Your task to perform on an android device: Go to ESPN.com Image 0: 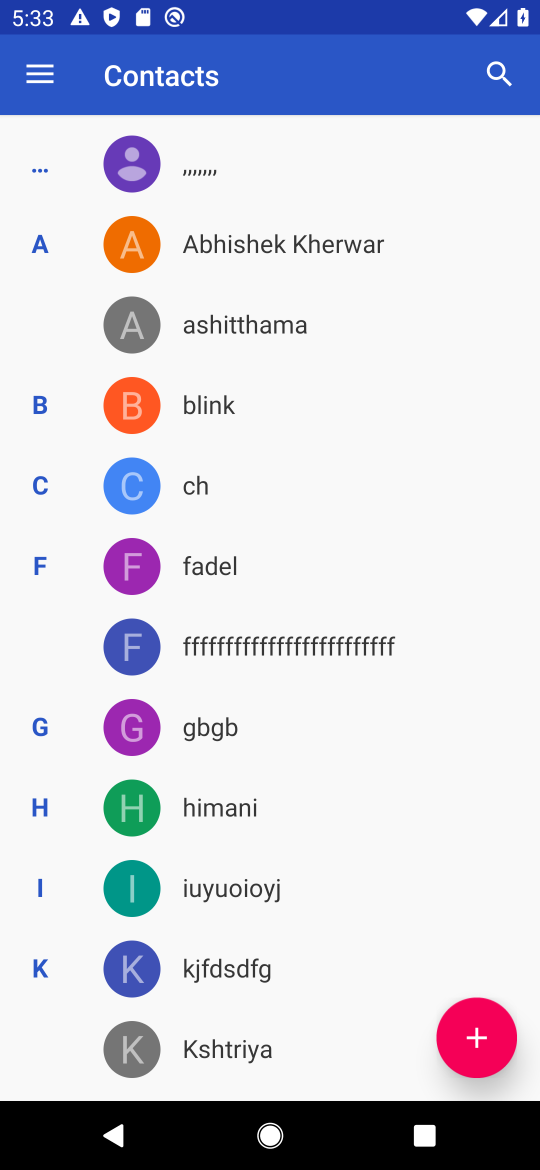
Step 0: press home button
Your task to perform on an android device: Go to ESPN.com Image 1: 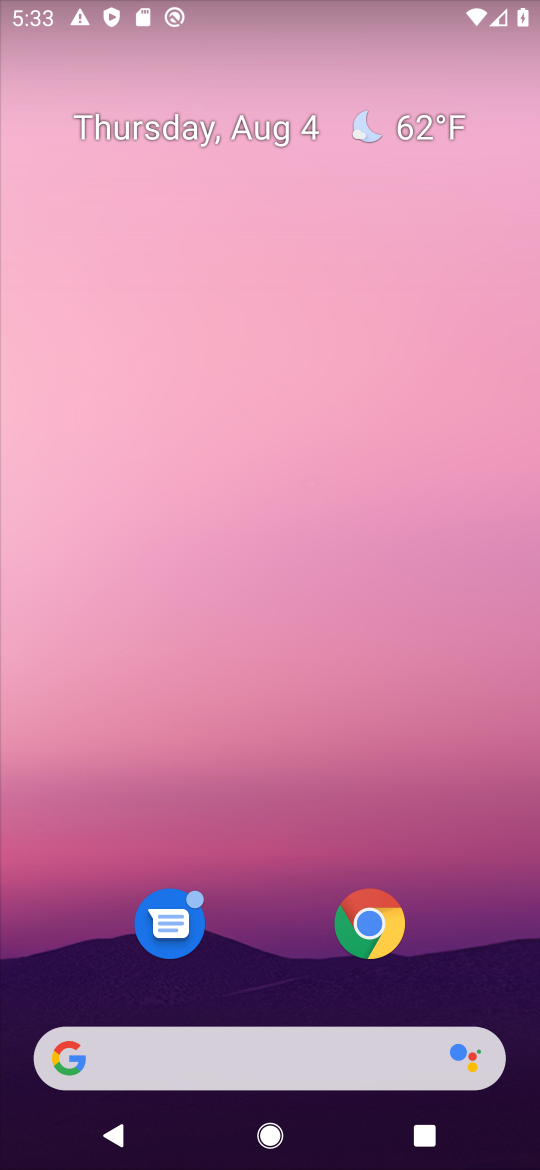
Step 1: click (382, 941)
Your task to perform on an android device: Go to ESPN.com Image 2: 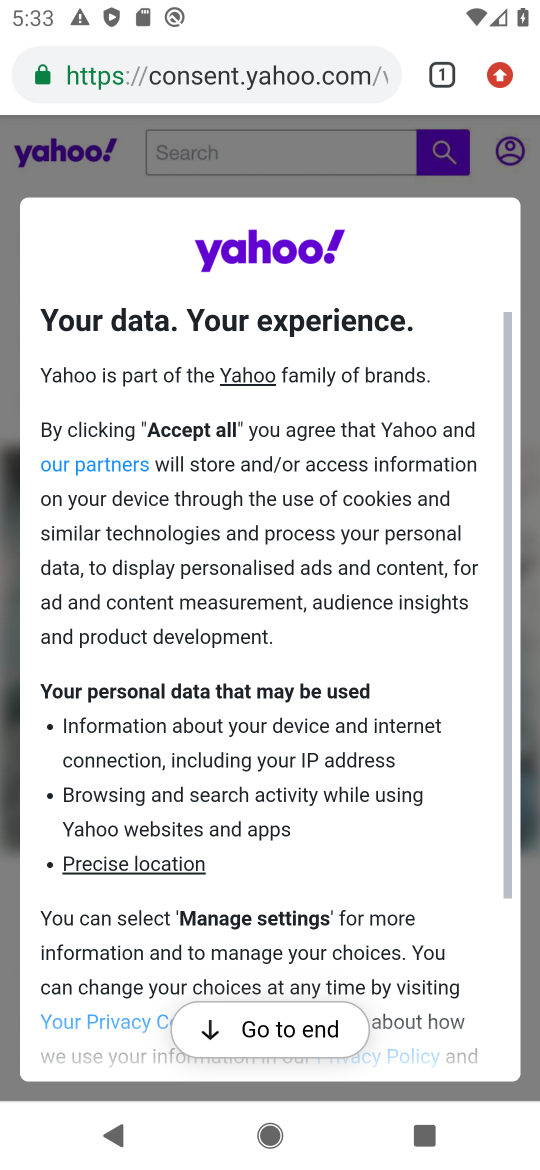
Step 2: click (449, 83)
Your task to perform on an android device: Go to ESPN.com Image 3: 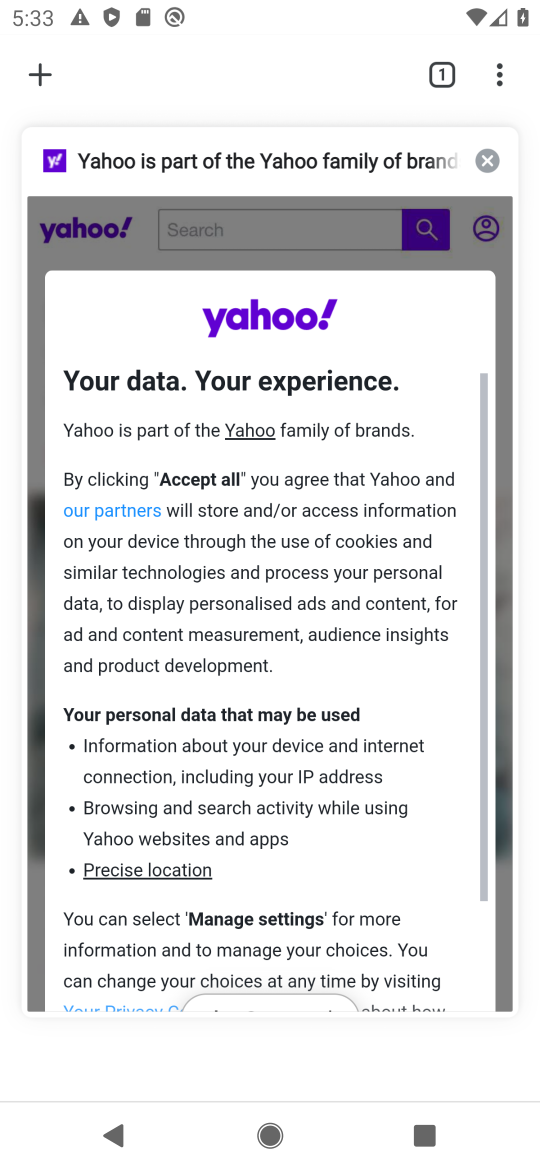
Step 3: click (488, 159)
Your task to perform on an android device: Go to ESPN.com Image 4: 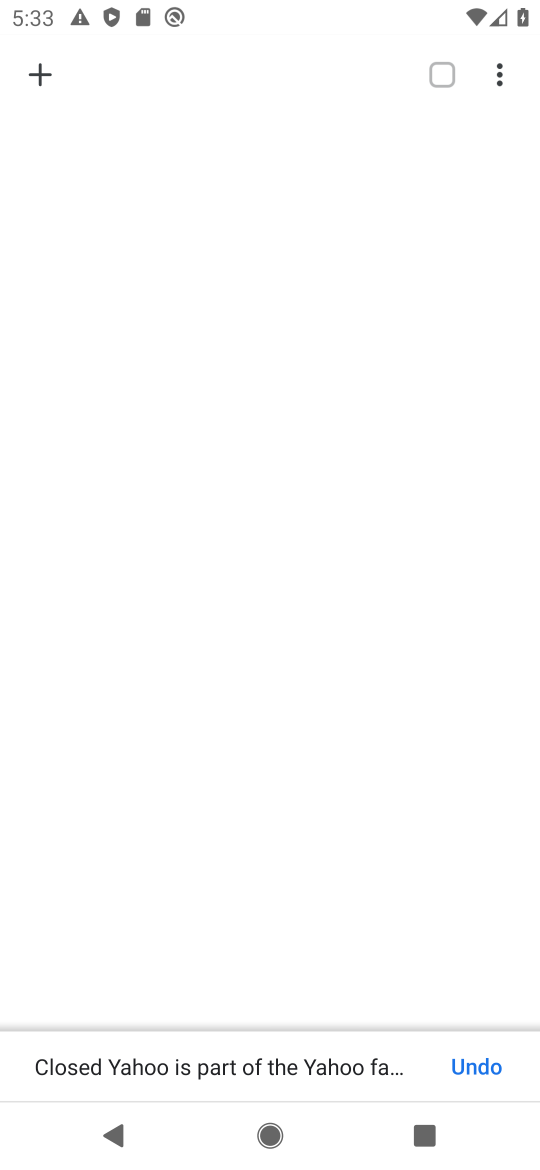
Step 4: click (38, 75)
Your task to perform on an android device: Go to ESPN.com Image 5: 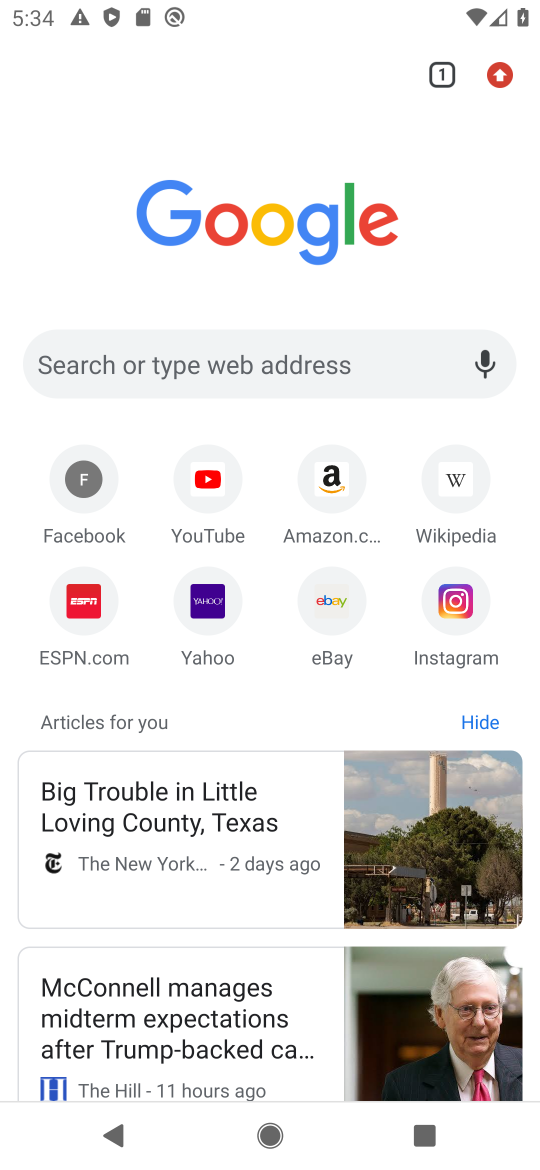
Step 5: click (83, 608)
Your task to perform on an android device: Go to ESPN.com Image 6: 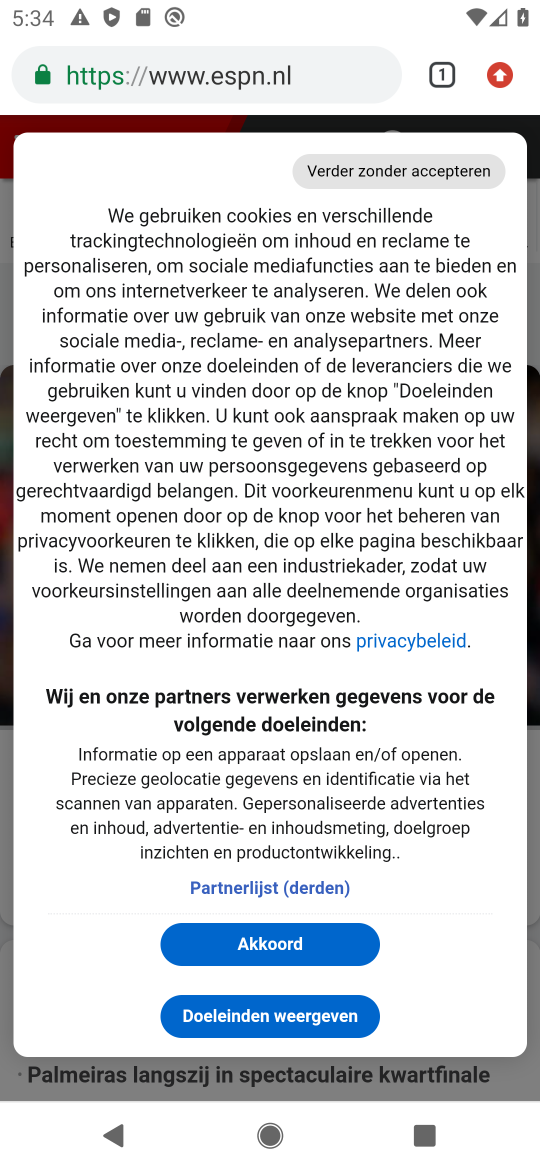
Step 6: task complete